Your task to perform on an android device: Show me popular videos on Youtube Image 0: 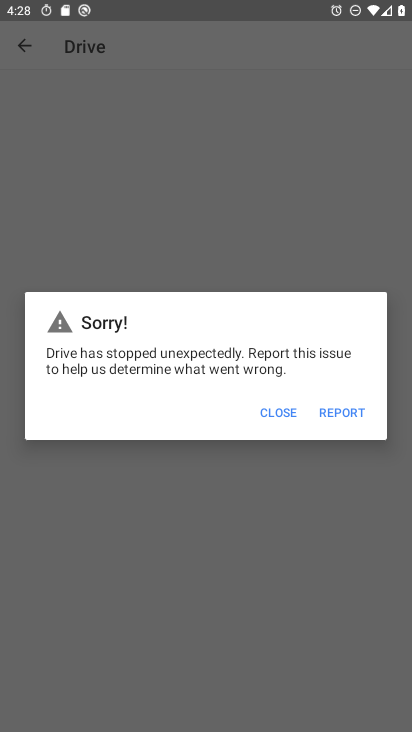
Step 0: press home button
Your task to perform on an android device: Show me popular videos on Youtube Image 1: 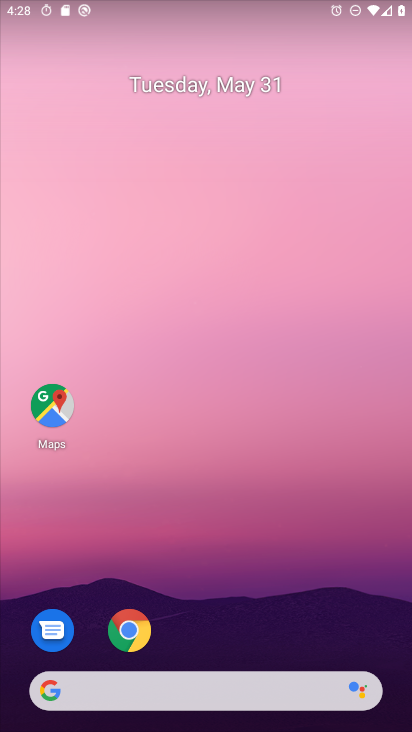
Step 1: drag from (183, 688) to (230, 84)
Your task to perform on an android device: Show me popular videos on Youtube Image 2: 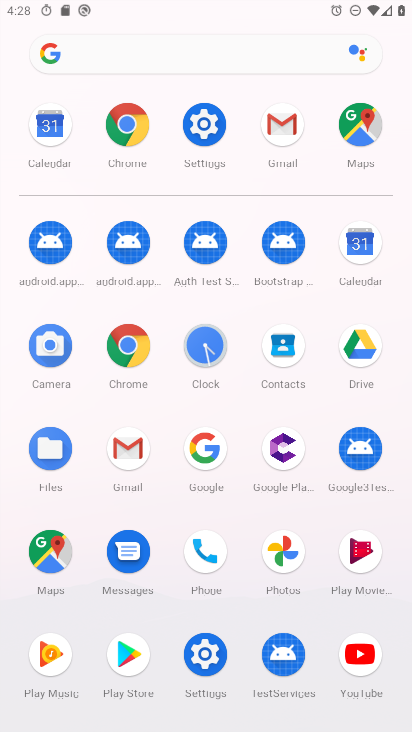
Step 2: click (355, 647)
Your task to perform on an android device: Show me popular videos on Youtube Image 3: 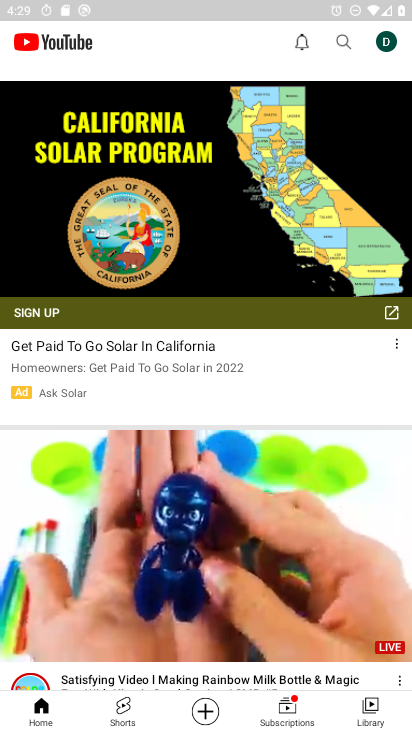
Step 3: click (369, 700)
Your task to perform on an android device: Show me popular videos on Youtube Image 4: 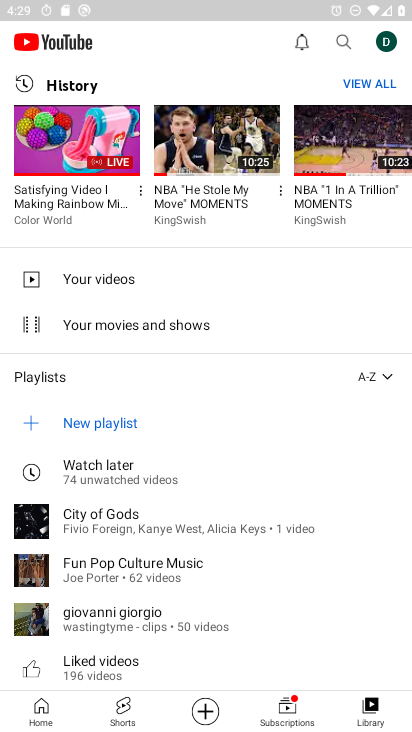
Step 4: click (44, 712)
Your task to perform on an android device: Show me popular videos on Youtube Image 5: 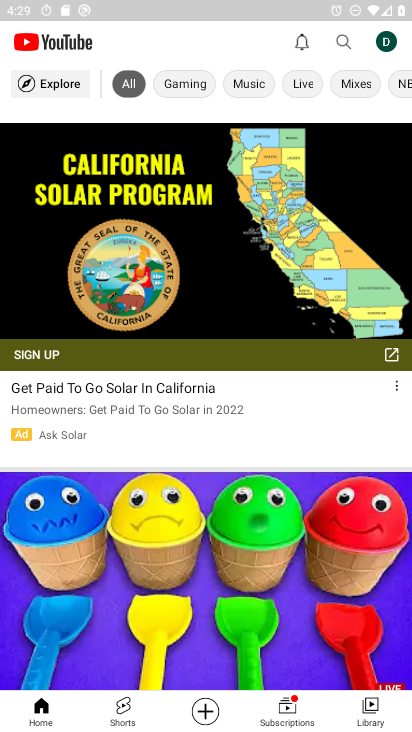
Step 5: task complete